Your task to perform on an android device: turn on translation in the chrome app Image 0: 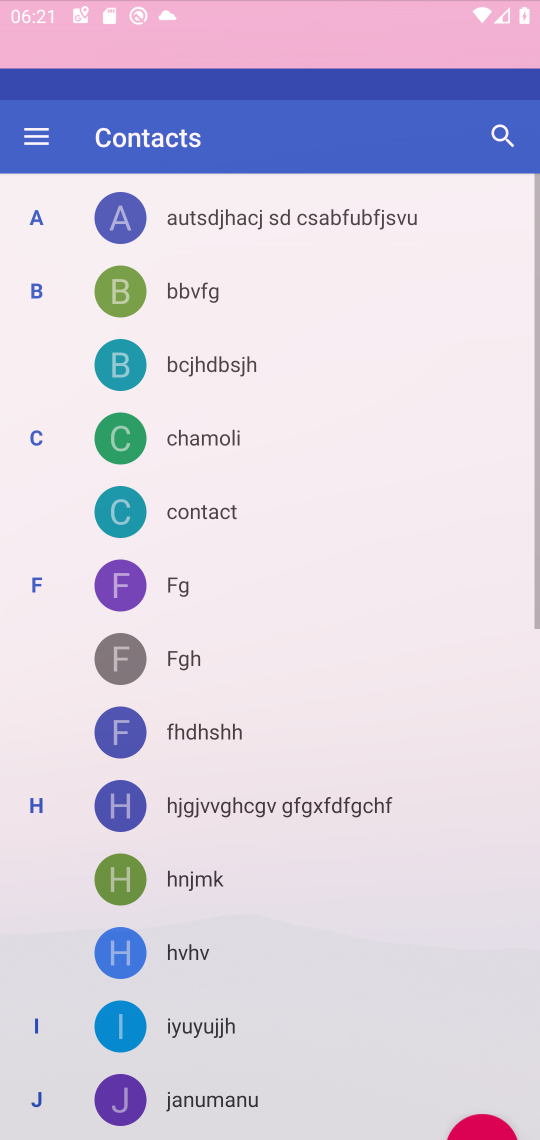
Step 0: press home button
Your task to perform on an android device: turn on translation in the chrome app Image 1: 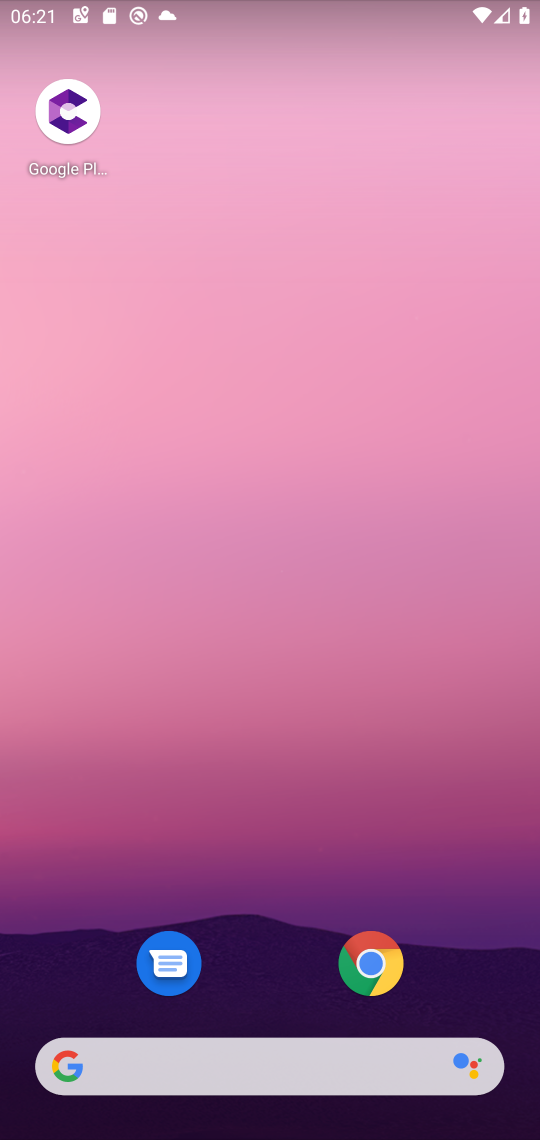
Step 1: click (376, 967)
Your task to perform on an android device: turn on translation in the chrome app Image 2: 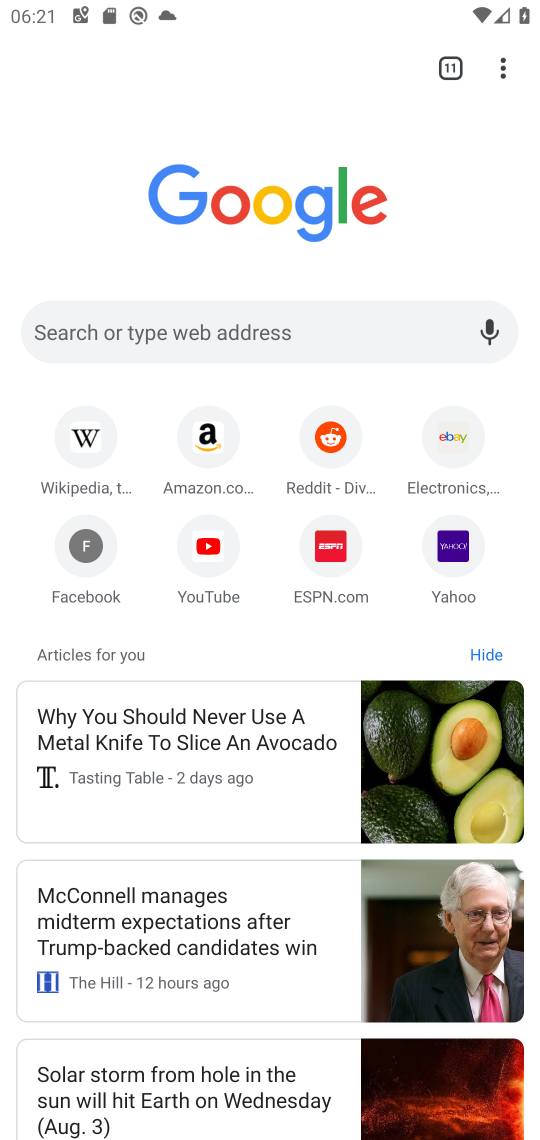
Step 2: click (505, 61)
Your task to perform on an android device: turn on translation in the chrome app Image 3: 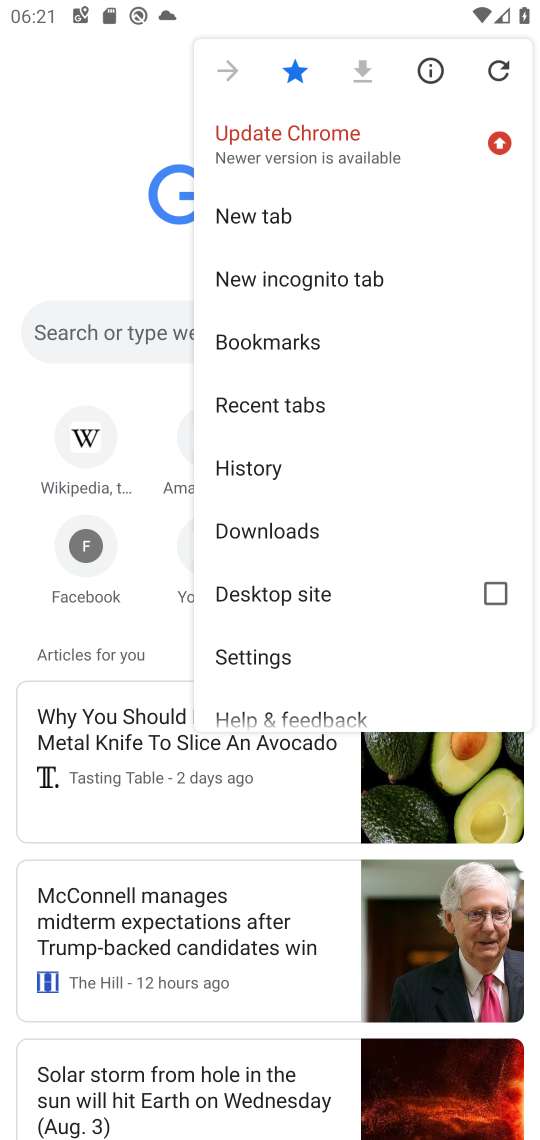
Step 3: click (272, 648)
Your task to perform on an android device: turn on translation in the chrome app Image 4: 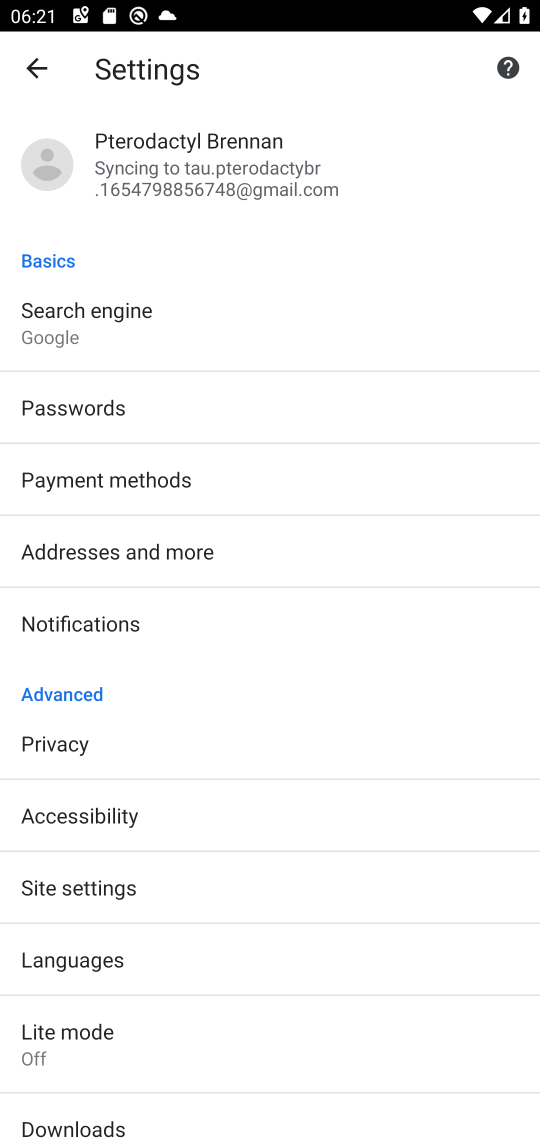
Step 4: click (104, 958)
Your task to perform on an android device: turn on translation in the chrome app Image 5: 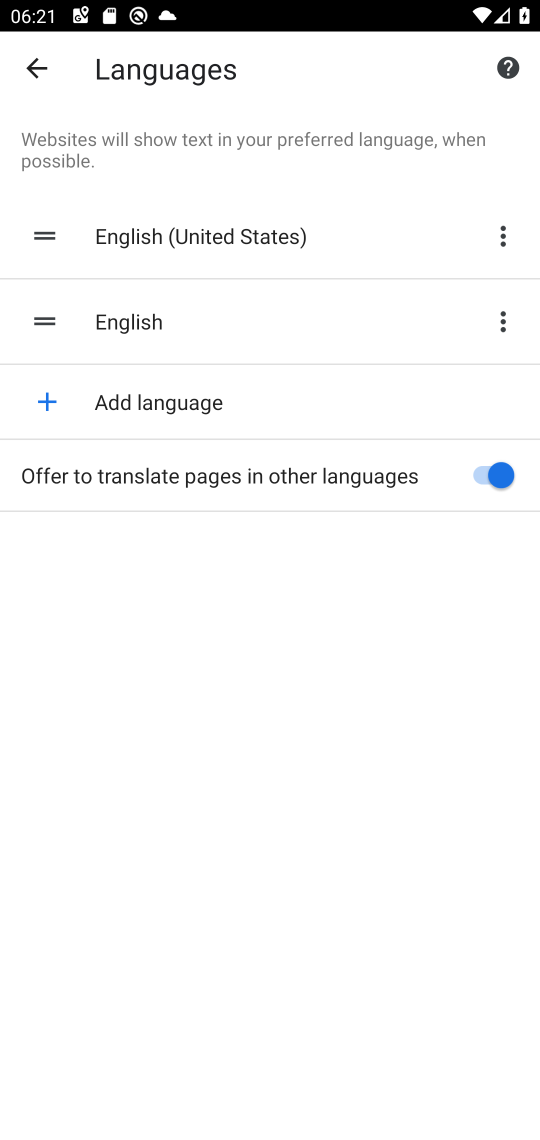
Step 5: task complete